Your task to perform on an android device: Go to CNN.com Image 0: 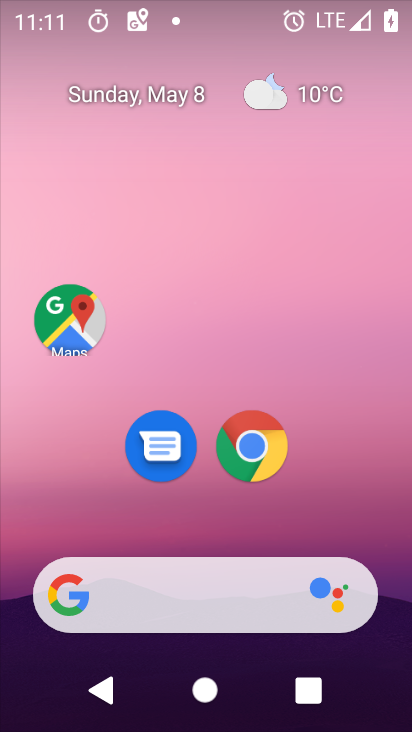
Step 0: click (389, 446)
Your task to perform on an android device: Go to CNN.com Image 1: 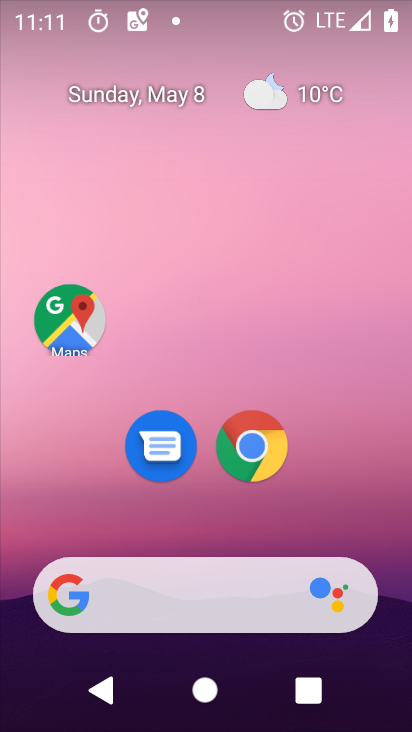
Step 1: click (268, 461)
Your task to perform on an android device: Go to CNN.com Image 2: 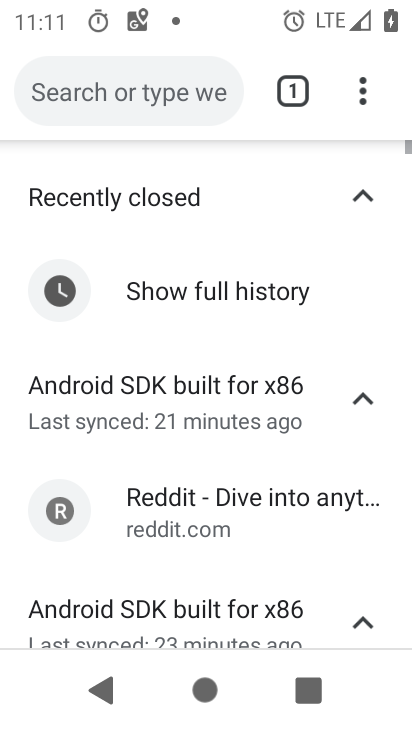
Step 2: click (105, 99)
Your task to perform on an android device: Go to CNN.com Image 3: 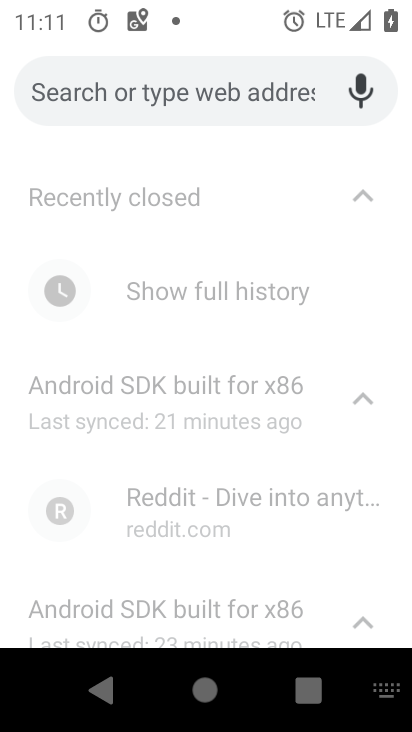
Step 3: type "cnn.com"
Your task to perform on an android device: Go to CNN.com Image 4: 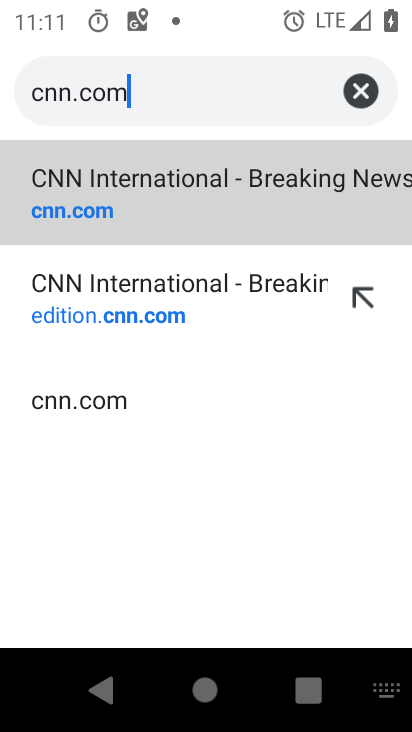
Step 4: click (54, 410)
Your task to perform on an android device: Go to CNN.com Image 5: 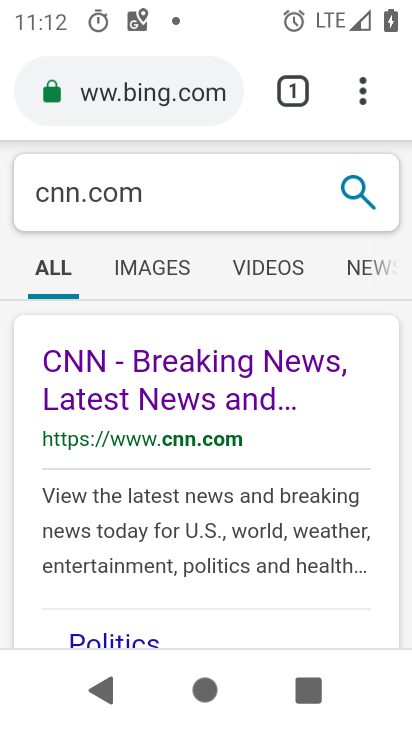
Step 5: click (91, 359)
Your task to perform on an android device: Go to CNN.com Image 6: 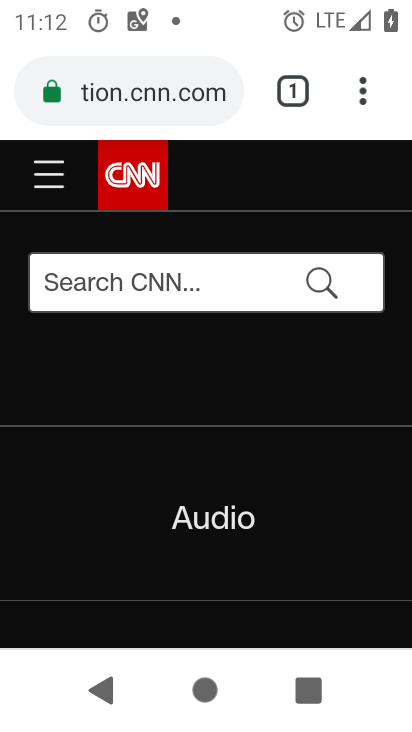
Step 6: task complete